Your task to perform on an android device: create a new album in the google photos Image 0: 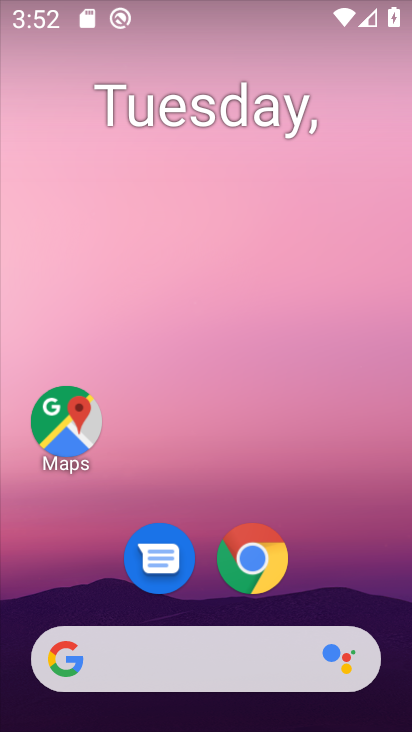
Step 0: drag from (60, 621) to (124, 184)
Your task to perform on an android device: create a new album in the google photos Image 1: 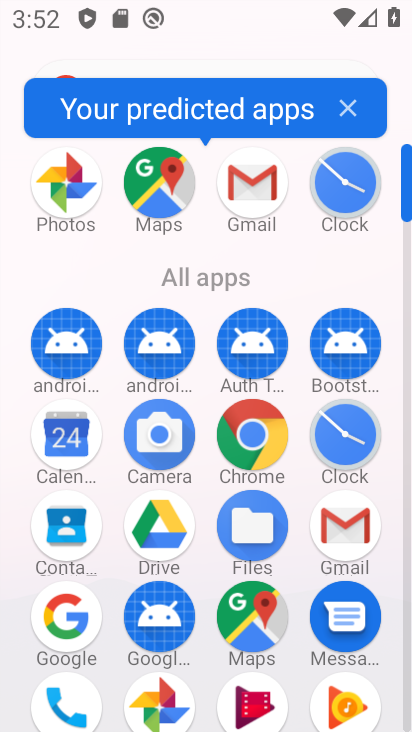
Step 1: drag from (165, 506) to (216, 233)
Your task to perform on an android device: create a new album in the google photos Image 2: 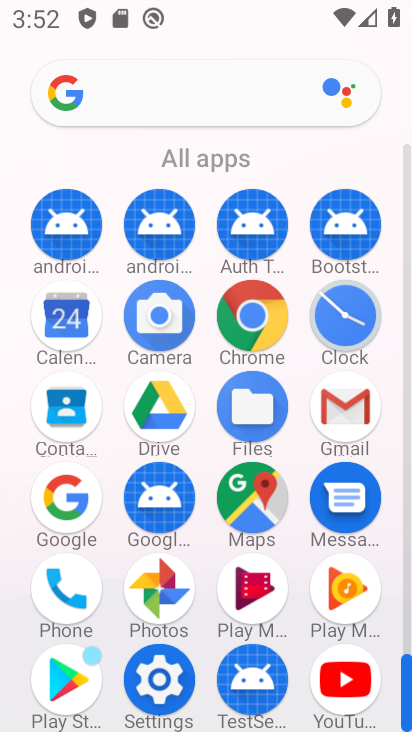
Step 2: click (158, 581)
Your task to perform on an android device: create a new album in the google photos Image 3: 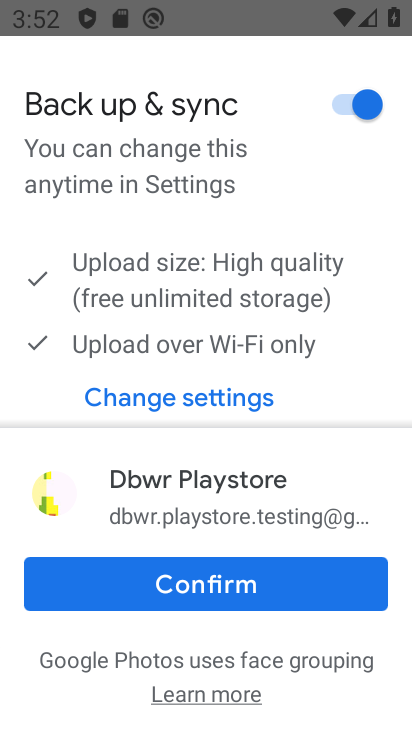
Step 3: click (207, 586)
Your task to perform on an android device: create a new album in the google photos Image 4: 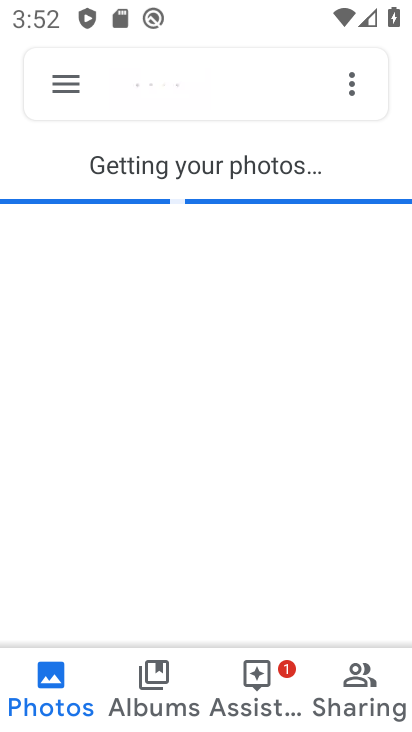
Step 4: click (360, 74)
Your task to perform on an android device: create a new album in the google photos Image 5: 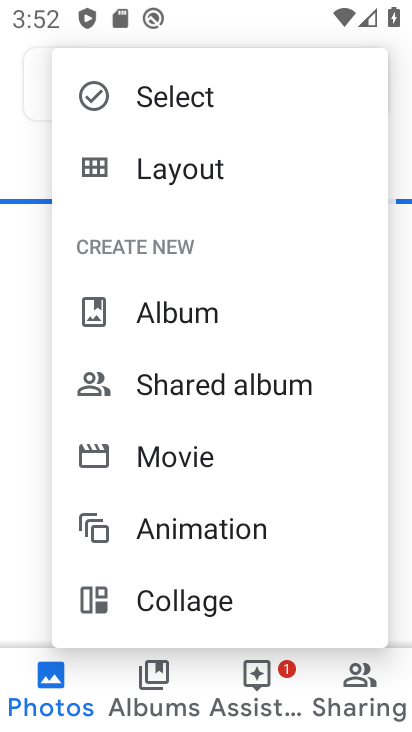
Step 5: click (204, 328)
Your task to perform on an android device: create a new album in the google photos Image 6: 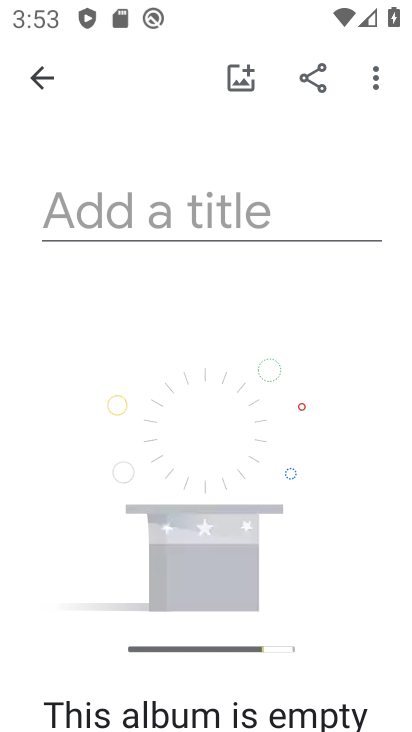
Step 6: click (189, 233)
Your task to perform on an android device: create a new album in the google photos Image 7: 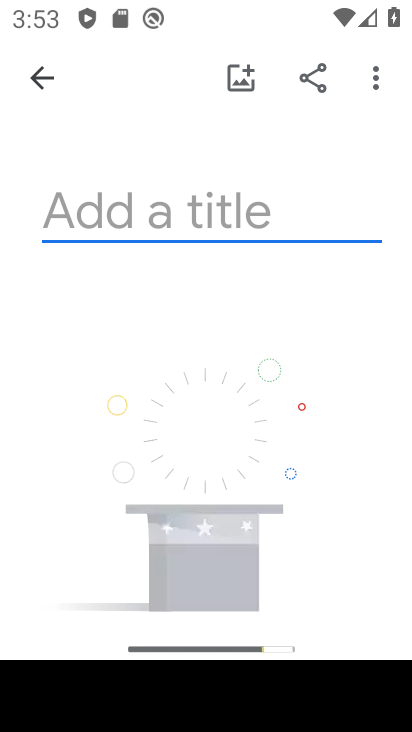
Step 7: type "xxxxxx"
Your task to perform on an android device: create a new album in the google photos Image 8: 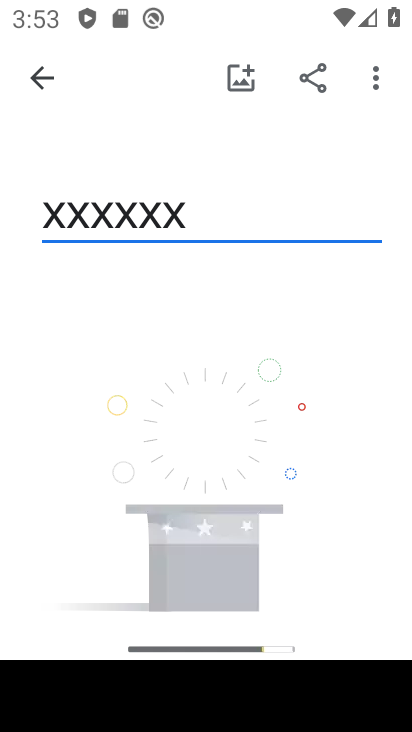
Step 8: click (242, 96)
Your task to perform on an android device: create a new album in the google photos Image 9: 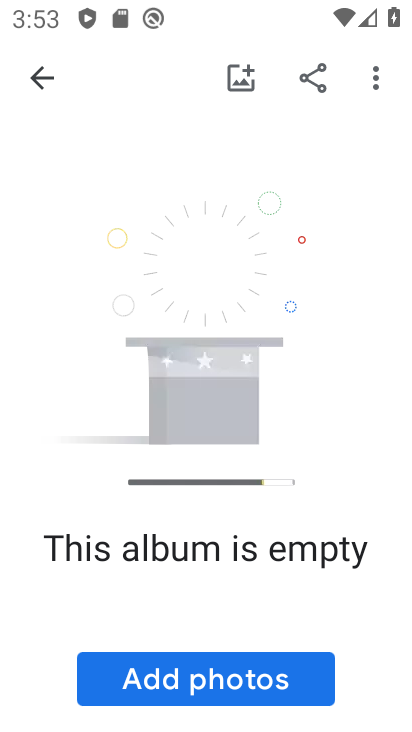
Step 9: click (295, 689)
Your task to perform on an android device: create a new album in the google photos Image 10: 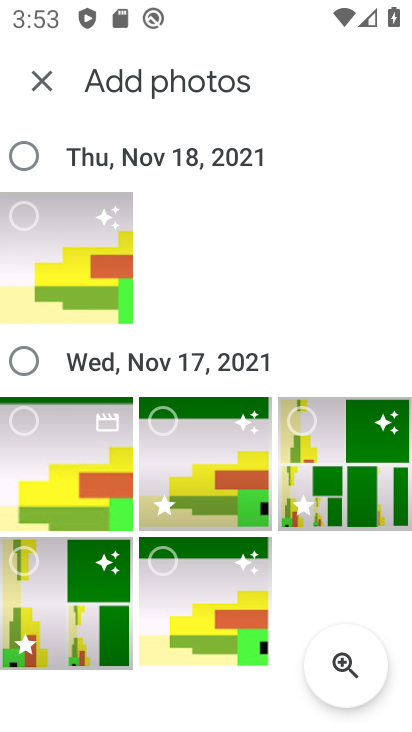
Step 10: click (23, 166)
Your task to perform on an android device: create a new album in the google photos Image 11: 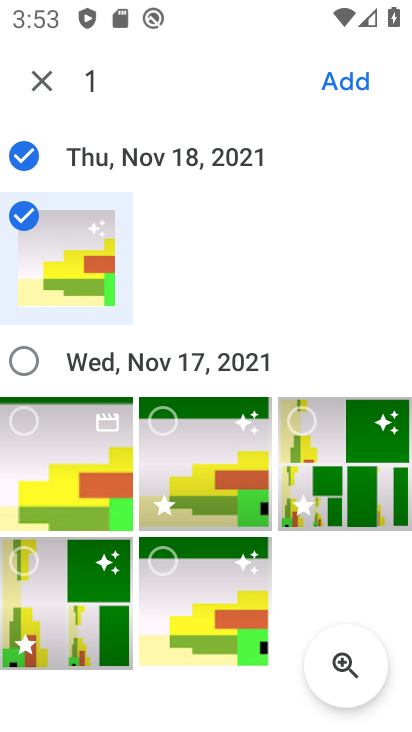
Step 11: click (22, 383)
Your task to perform on an android device: create a new album in the google photos Image 12: 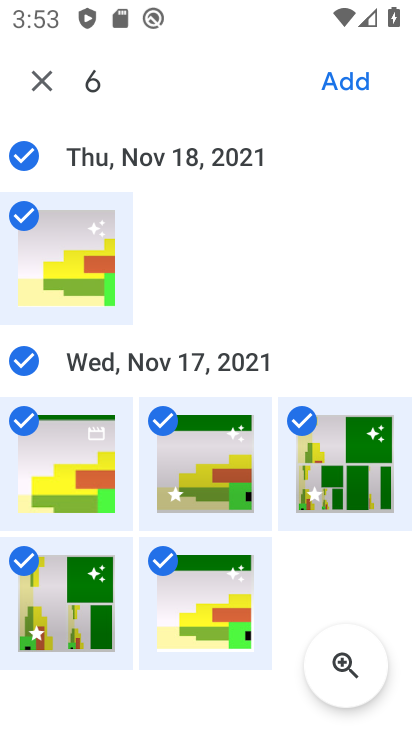
Step 12: click (385, 80)
Your task to perform on an android device: create a new album in the google photos Image 13: 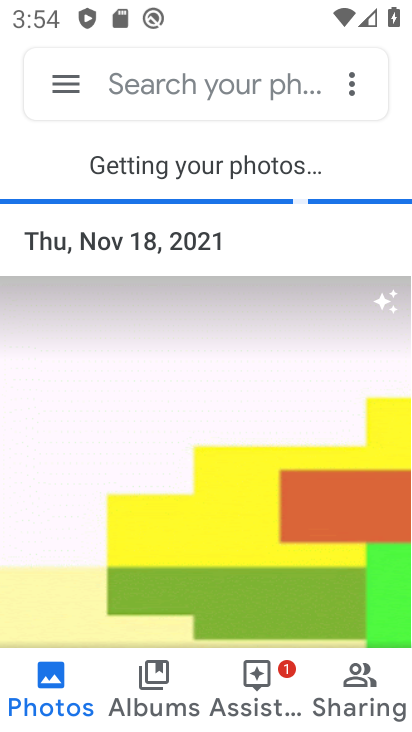
Step 13: click (363, 95)
Your task to perform on an android device: create a new album in the google photos Image 14: 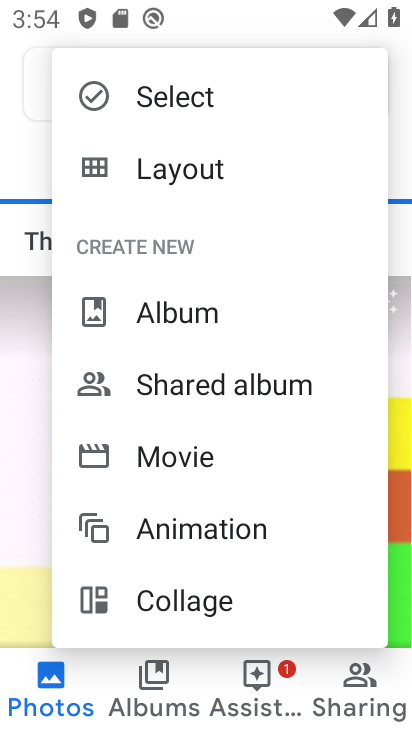
Step 14: click (240, 319)
Your task to perform on an android device: create a new album in the google photos Image 15: 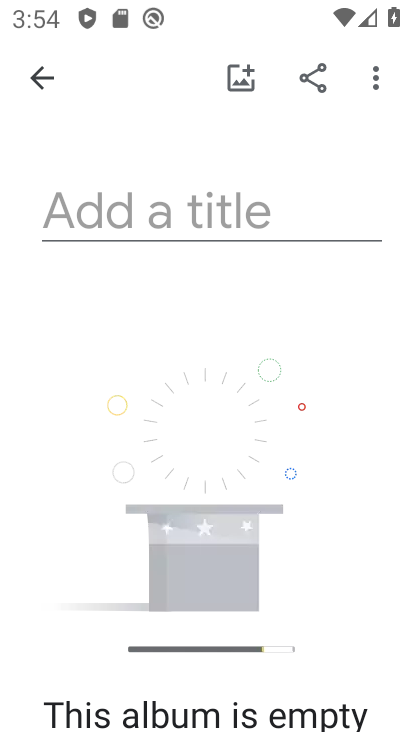
Step 15: click (214, 206)
Your task to perform on an android device: create a new album in the google photos Image 16: 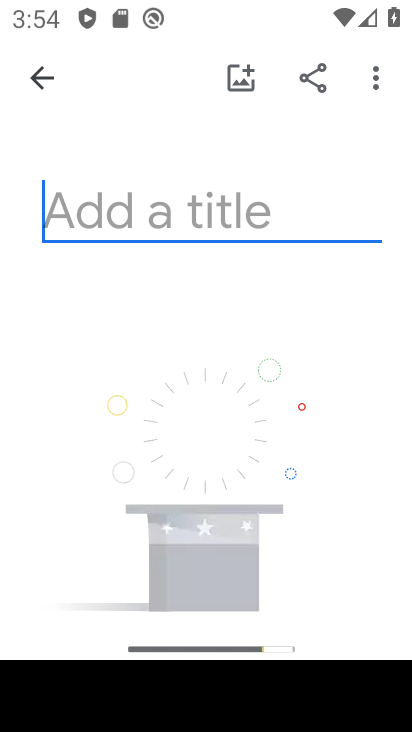
Step 16: type "xxxx"
Your task to perform on an android device: create a new album in the google photos Image 17: 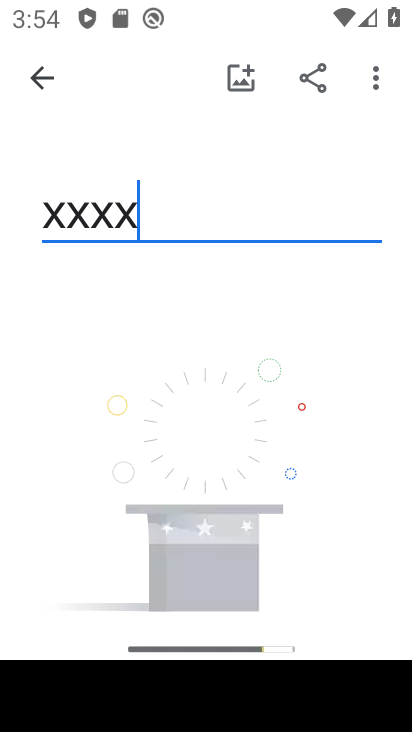
Step 17: click (265, 82)
Your task to perform on an android device: create a new album in the google photos Image 18: 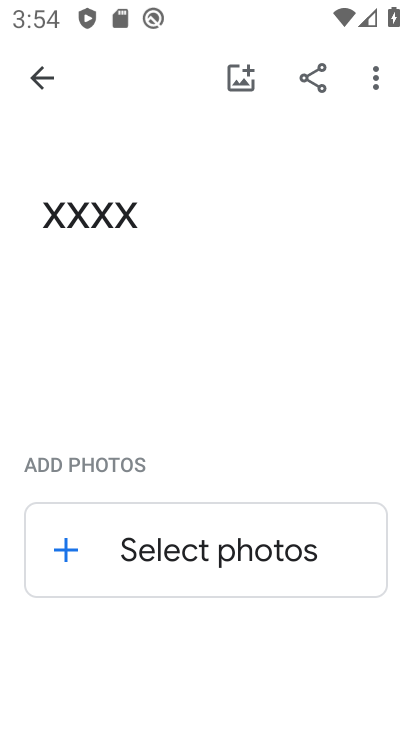
Step 18: click (187, 575)
Your task to perform on an android device: create a new album in the google photos Image 19: 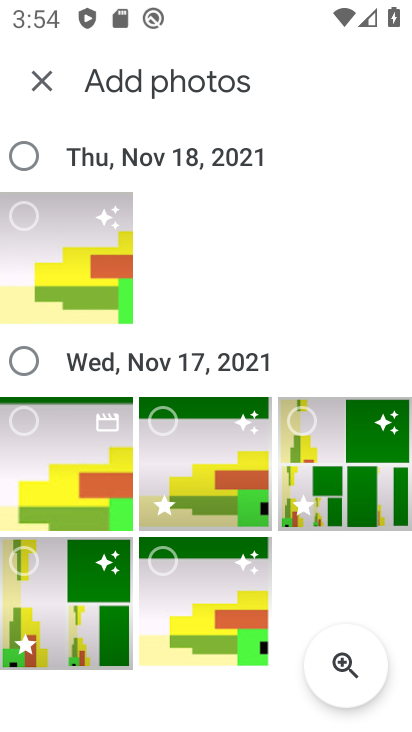
Step 19: click (25, 362)
Your task to perform on an android device: create a new album in the google photos Image 20: 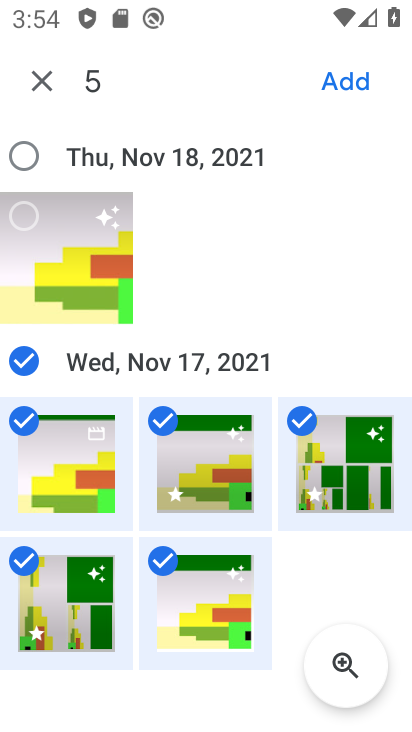
Step 20: click (349, 82)
Your task to perform on an android device: create a new album in the google photos Image 21: 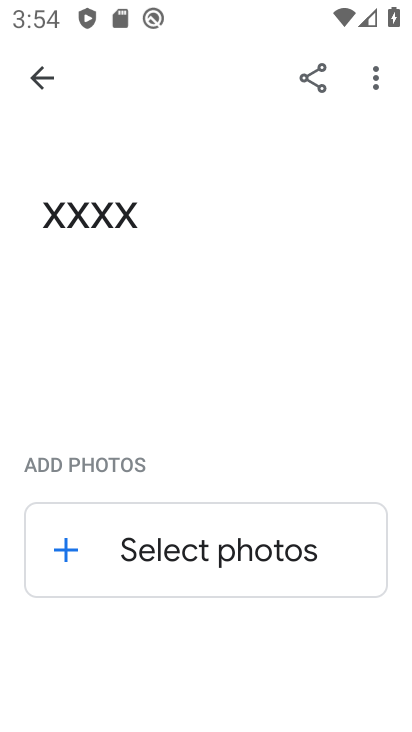
Step 21: click (219, 545)
Your task to perform on an android device: create a new album in the google photos Image 22: 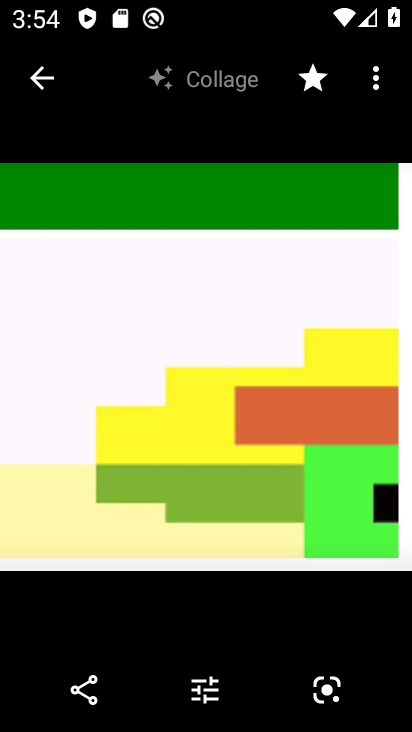
Step 22: task complete